Your task to perform on an android device: Go to Yahoo.com Image 0: 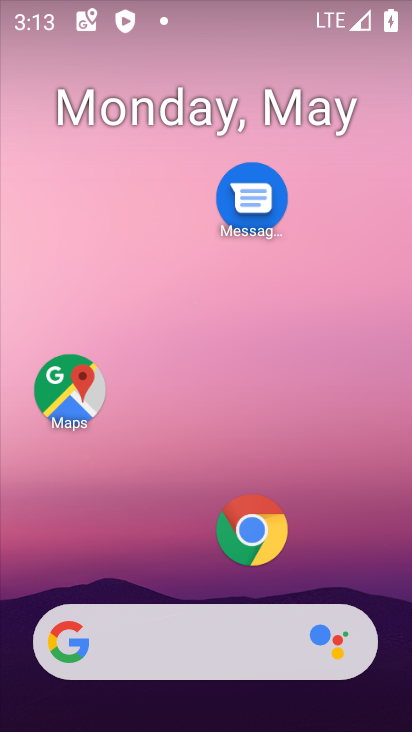
Step 0: click (243, 512)
Your task to perform on an android device: Go to Yahoo.com Image 1: 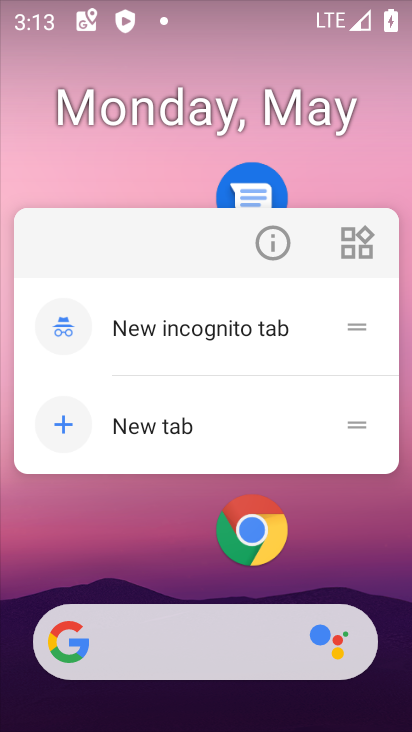
Step 1: click (253, 544)
Your task to perform on an android device: Go to Yahoo.com Image 2: 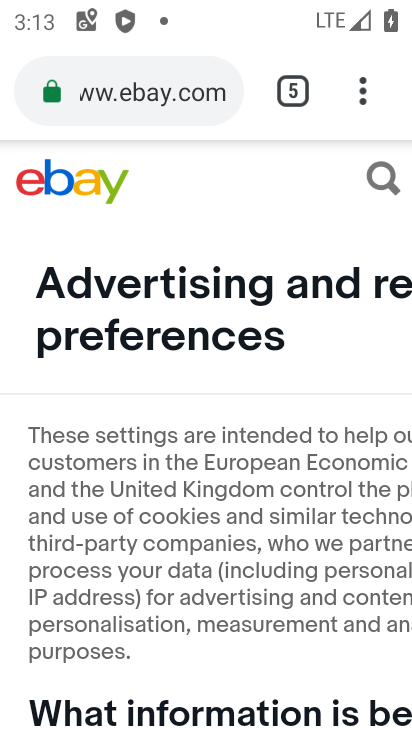
Step 2: click (288, 93)
Your task to perform on an android device: Go to Yahoo.com Image 3: 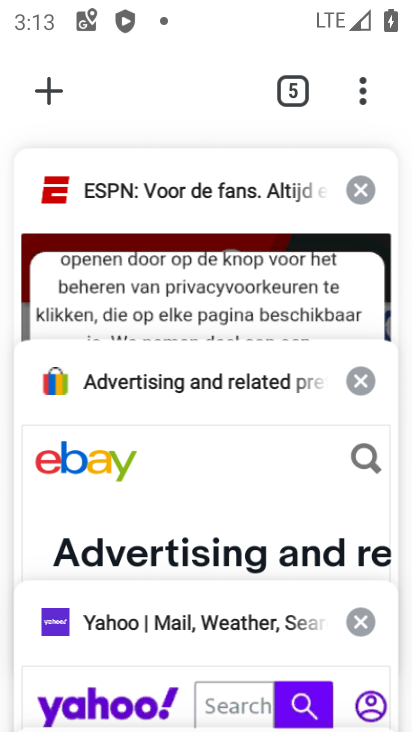
Step 3: click (142, 612)
Your task to perform on an android device: Go to Yahoo.com Image 4: 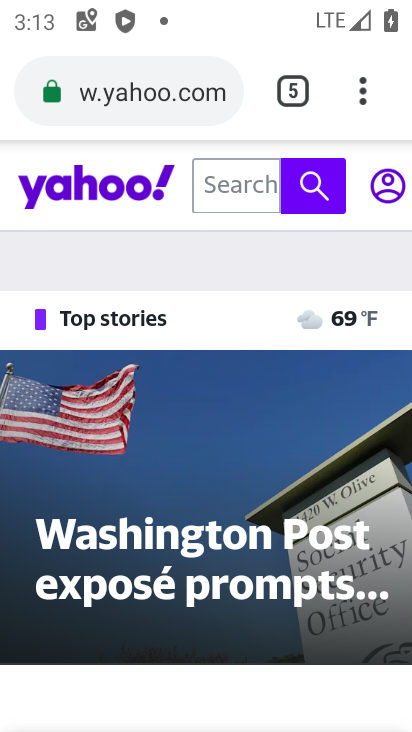
Step 4: task complete